Your task to perform on an android device: turn off improve location accuracy Image 0: 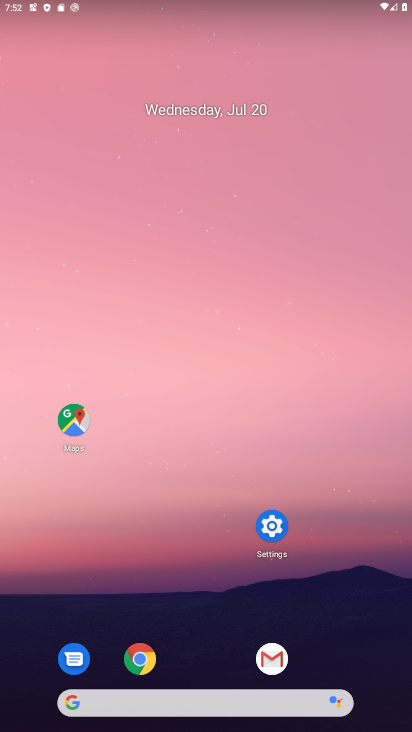
Step 0: click (281, 528)
Your task to perform on an android device: turn off improve location accuracy Image 1: 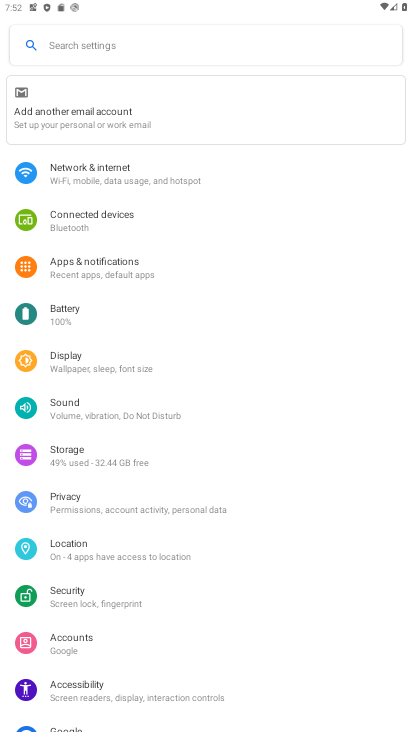
Step 1: click (101, 548)
Your task to perform on an android device: turn off improve location accuracy Image 2: 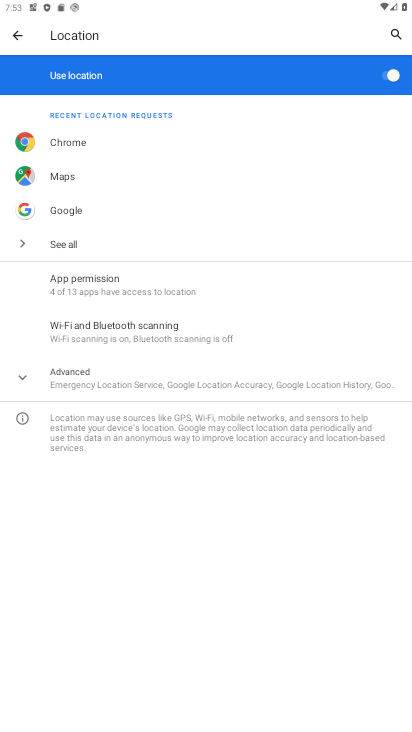
Step 2: click (64, 381)
Your task to perform on an android device: turn off improve location accuracy Image 3: 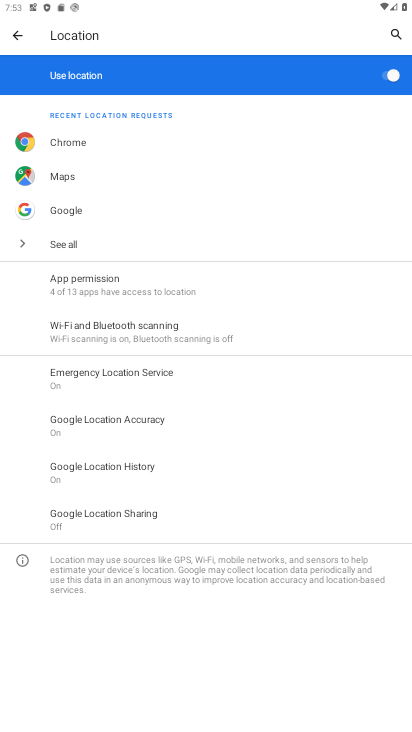
Step 3: click (132, 423)
Your task to perform on an android device: turn off improve location accuracy Image 4: 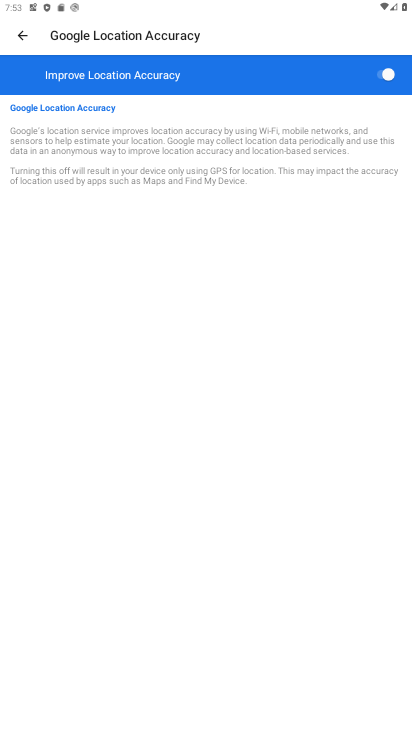
Step 4: click (385, 75)
Your task to perform on an android device: turn off improve location accuracy Image 5: 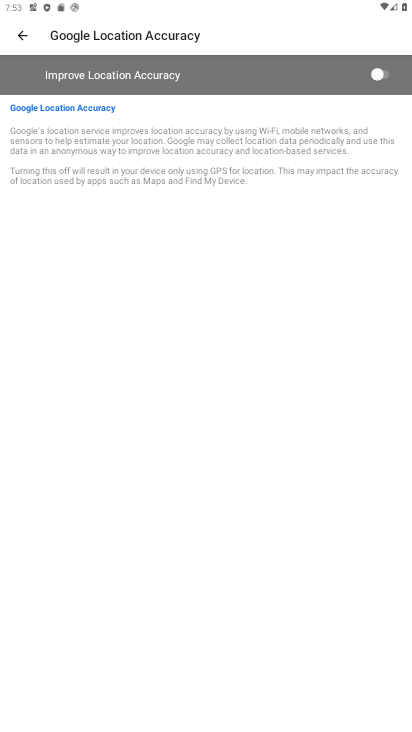
Step 5: task complete